Your task to perform on an android device: open app "Truecaller" Image 0: 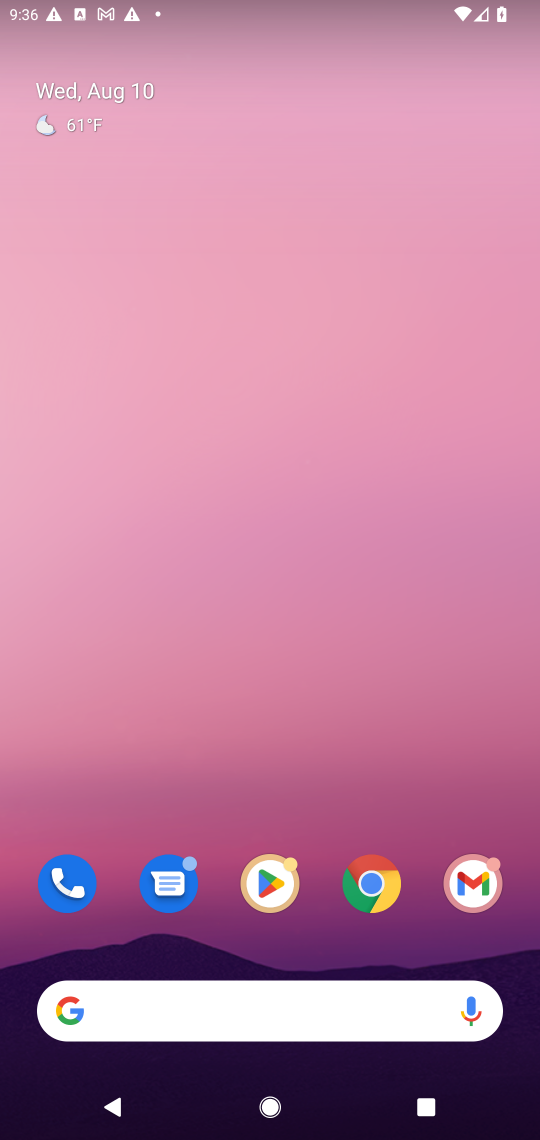
Step 0: click (282, 880)
Your task to perform on an android device: open app "Truecaller" Image 1: 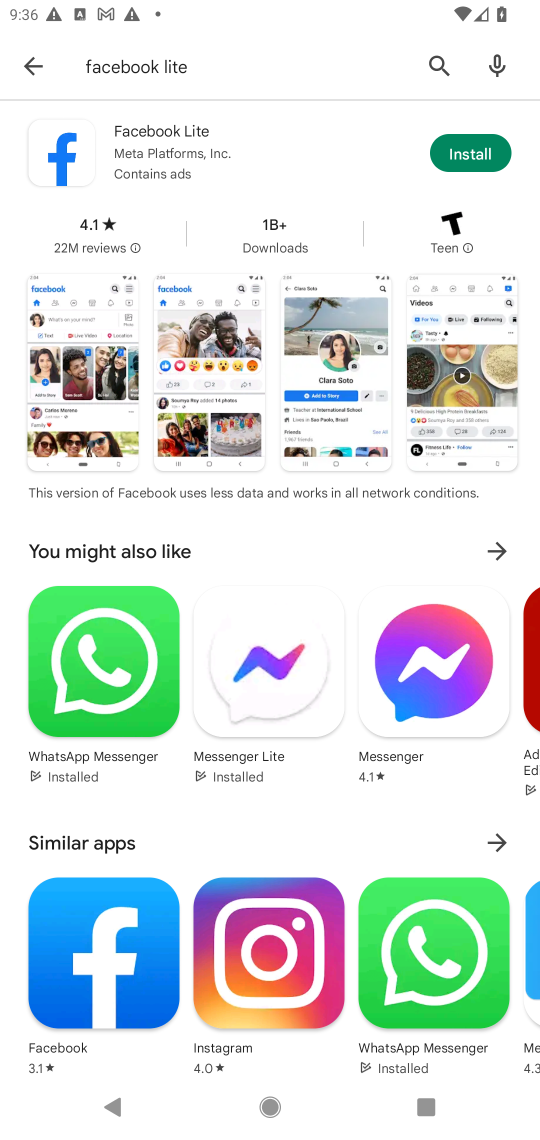
Step 1: click (432, 68)
Your task to perform on an android device: open app "Truecaller" Image 2: 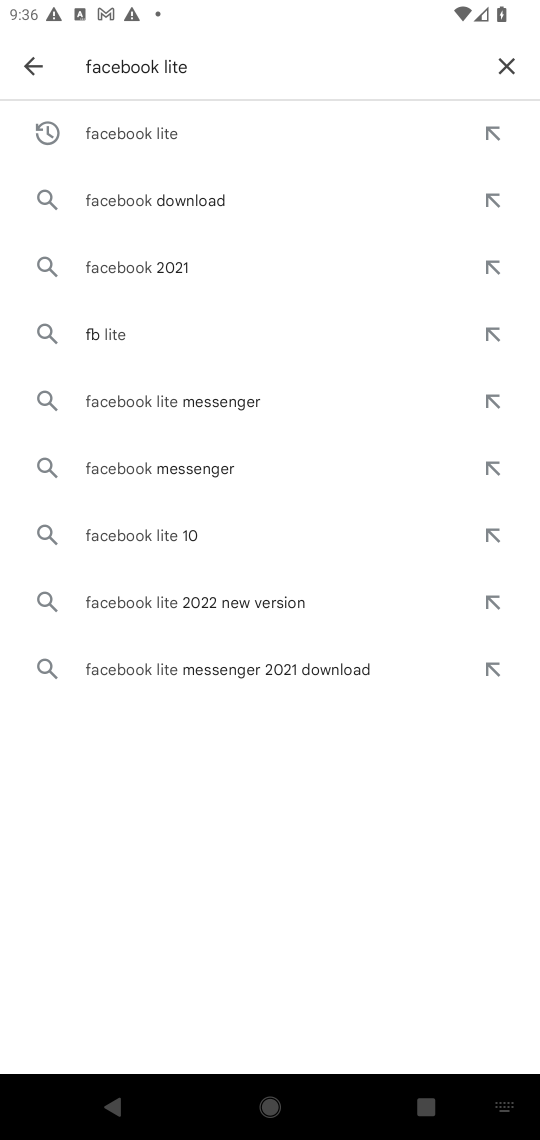
Step 2: click (502, 67)
Your task to perform on an android device: open app "Truecaller" Image 3: 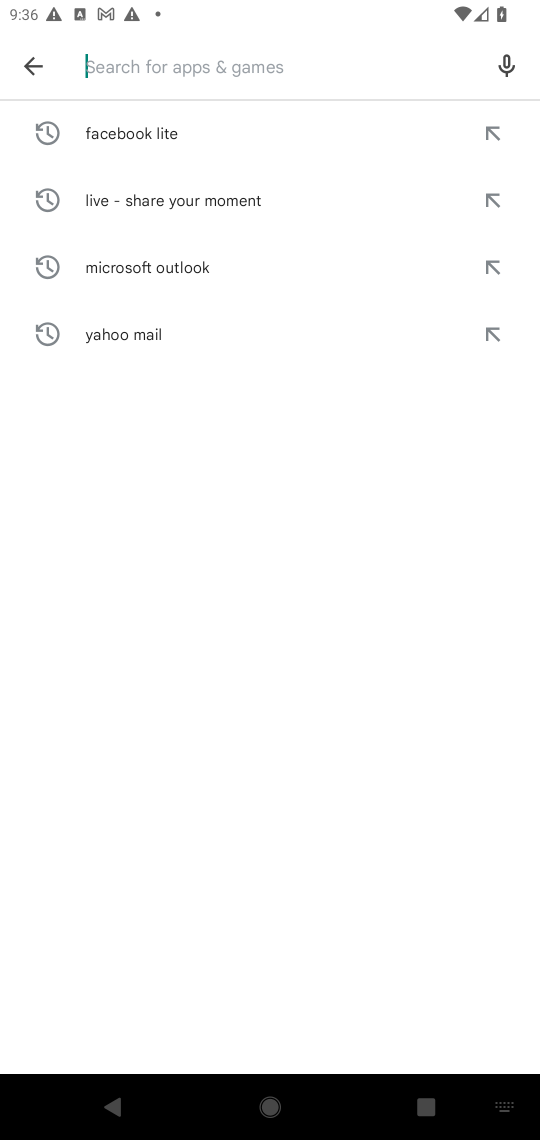
Step 3: type "Truecaller"
Your task to perform on an android device: open app "Truecaller" Image 4: 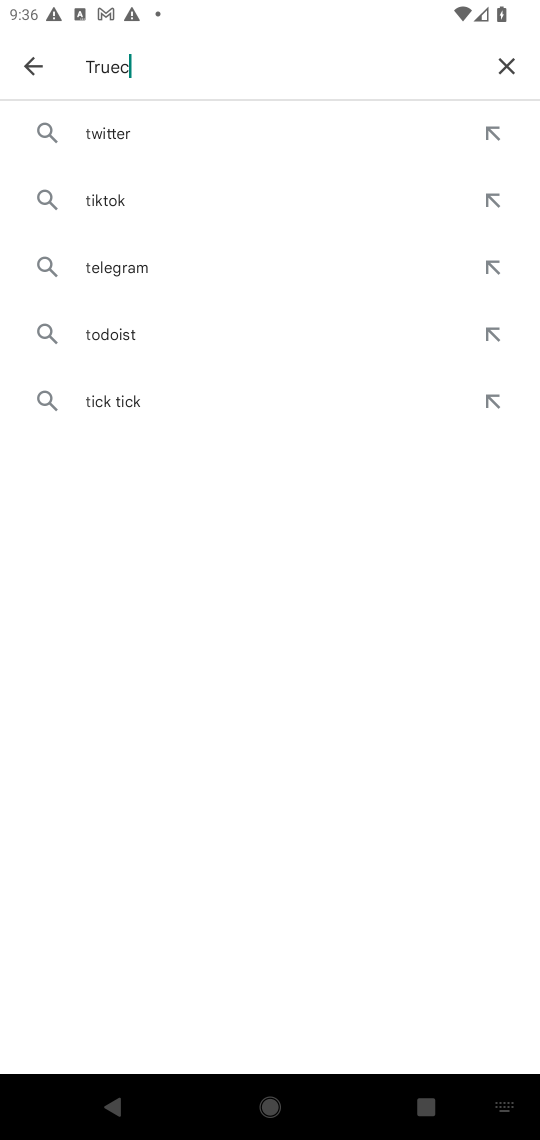
Step 4: type ""
Your task to perform on an android device: open app "Truecaller" Image 5: 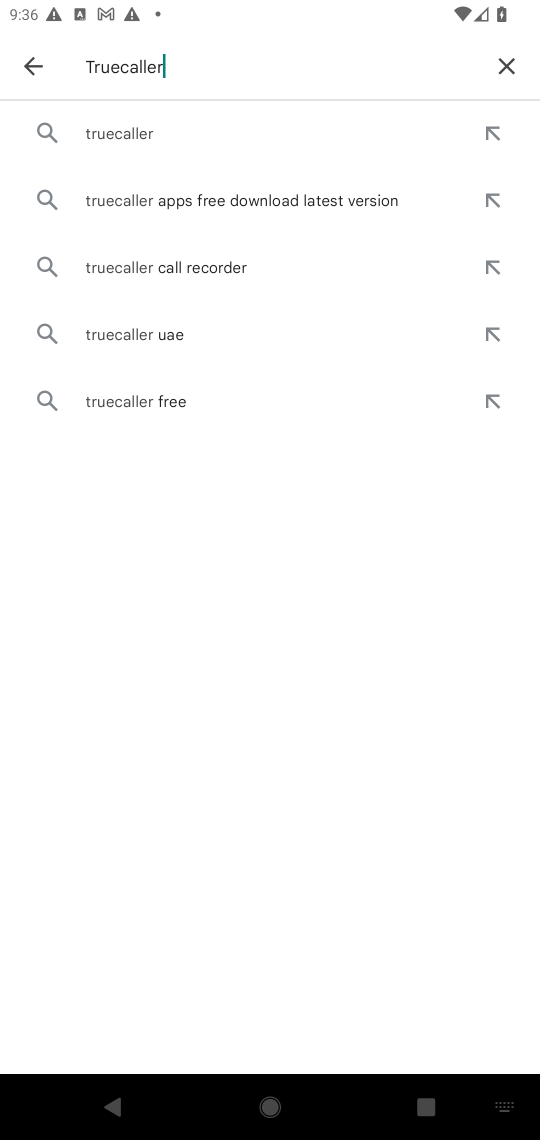
Step 5: click (219, 129)
Your task to perform on an android device: open app "Truecaller" Image 6: 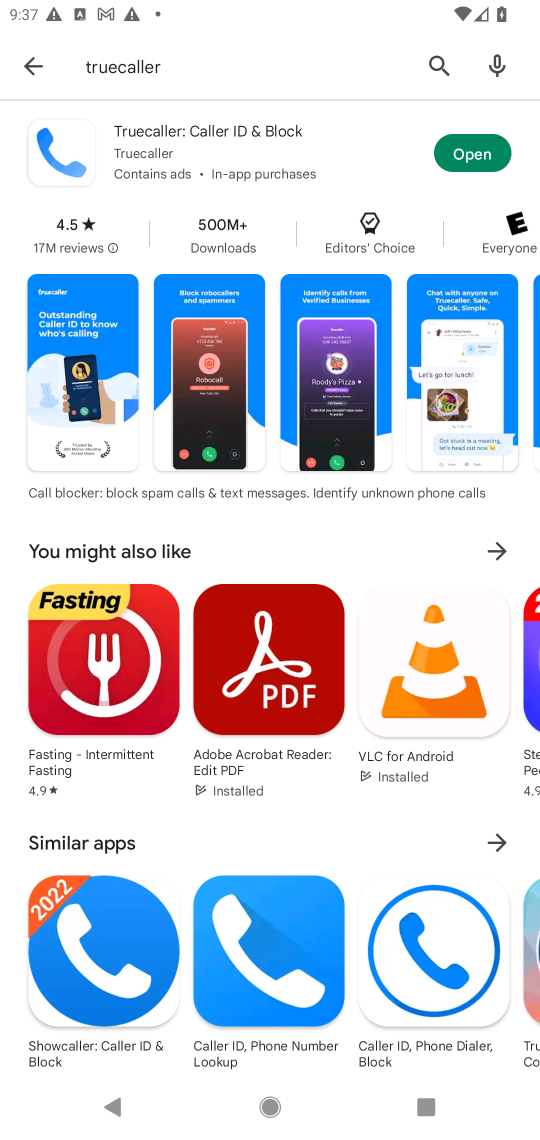
Step 6: click (486, 141)
Your task to perform on an android device: open app "Truecaller" Image 7: 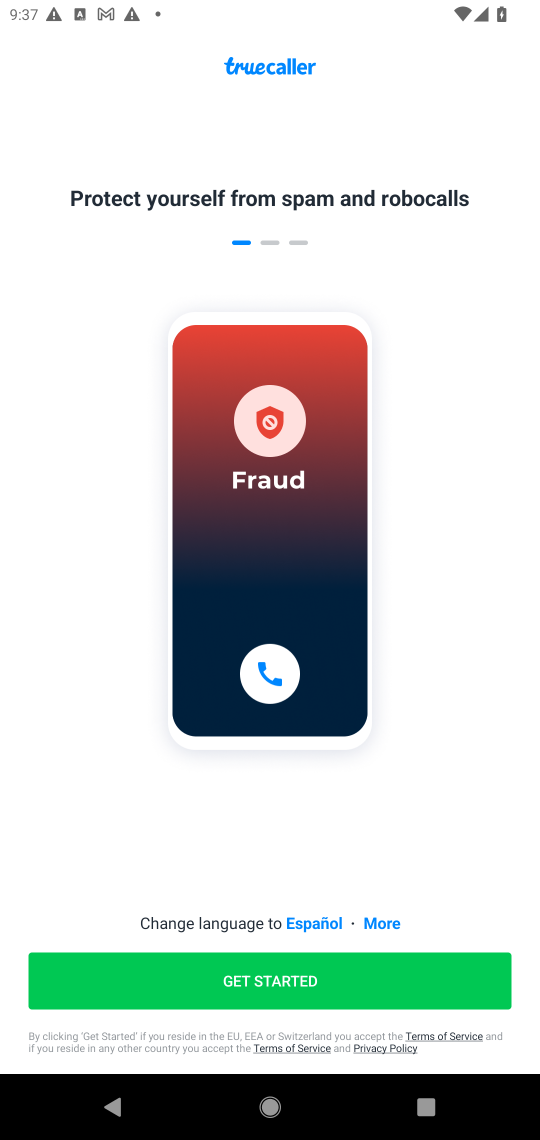
Step 7: task complete